Your task to perform on an android device: Open wifi settings Image 0: 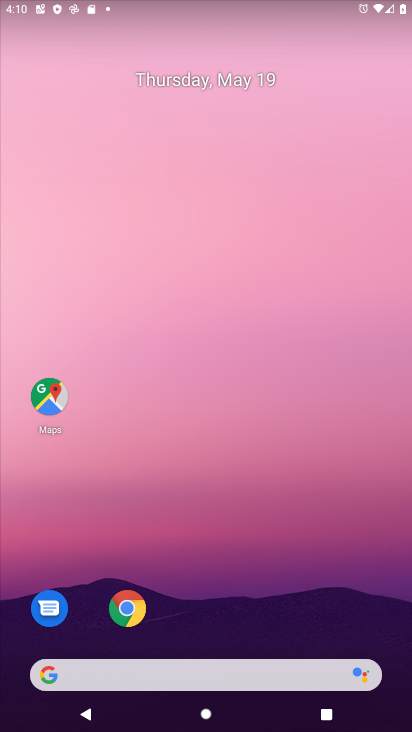
Step 0: drag from (274, 623) to (261, 50)
Your task to perform on an android device: Open wifi settings Image 1: 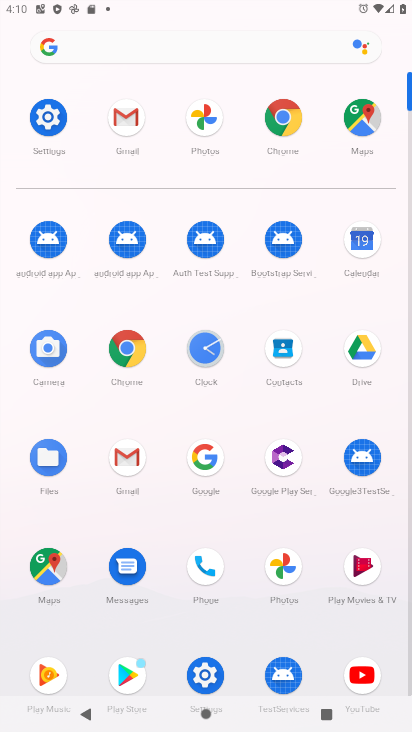
Step 1: click (48, 131)
Your task to perform on an android device: Open wifi settings Image 2: 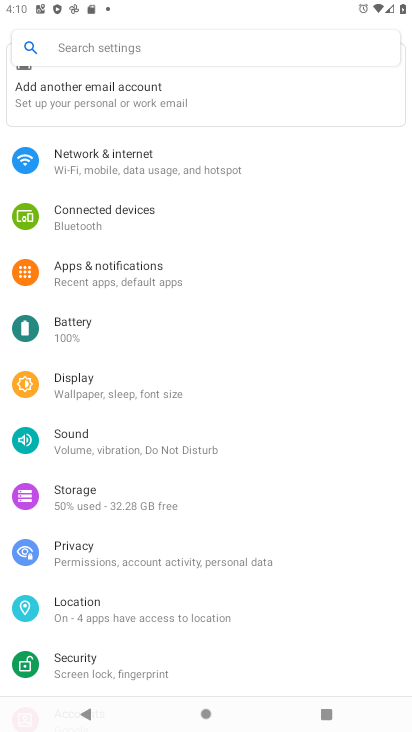
Step 2: click (151, 146)
Your task to perform on an android device: Open wifi settings Image 3: 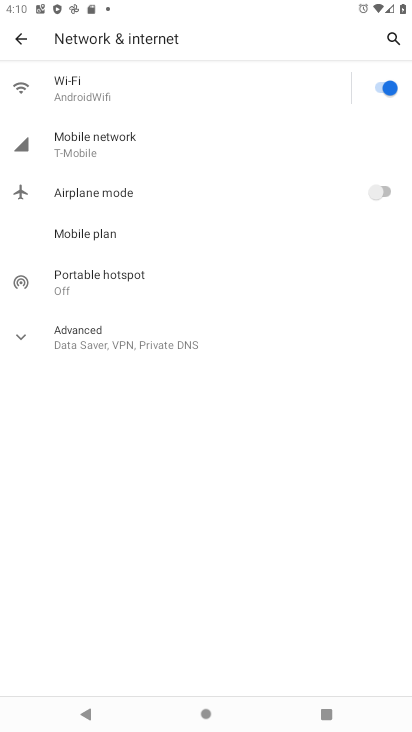
Step 3: task complete